Your task to perform on an android device: read, delete, or share a saved page in the chrome app Image 0: 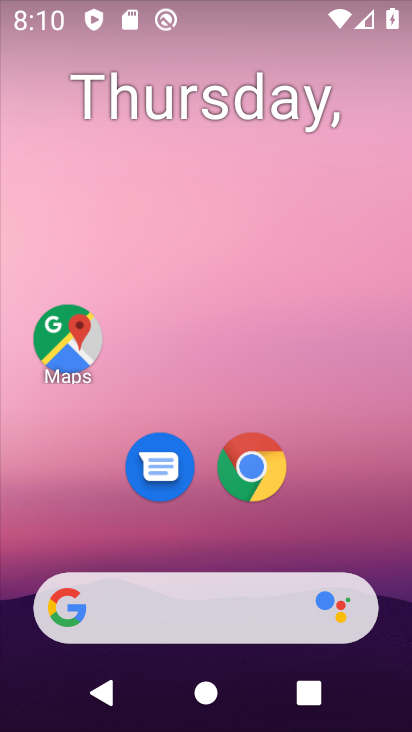
Step 0: click (249, 483)
Your task to perform on an android device: read, delete, or share a saved page in the chrome app Image 1: 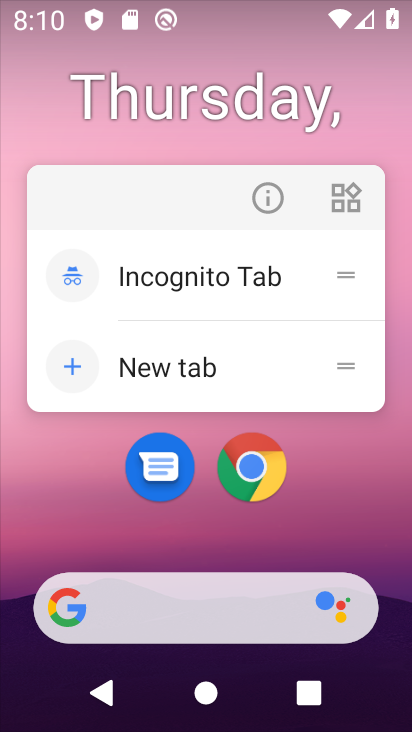
Step 1: click (256, 453)
Your task to perform on an android device: read, delete, or share a saved page in the chrome app Image 2: 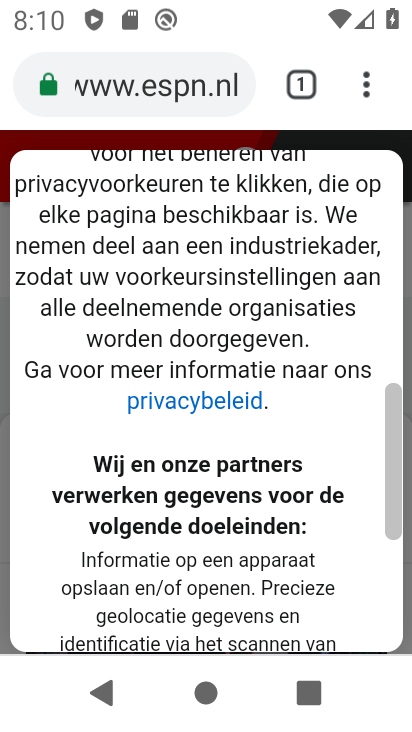
Step 2: drag from (274, 565) to (268, 200)
Your task to perform on an android device: read, delete, or share a saved page in the chrome app Image 3: 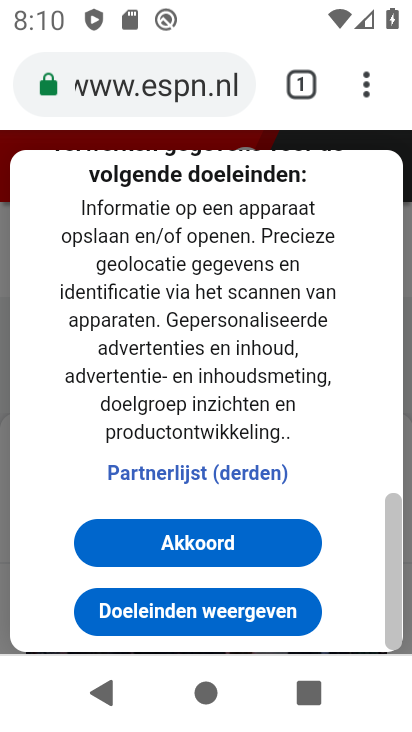
Step 3: click (363, 89)
Your task to perform on an android device: read, delete, or share a saved page in the chrome app Image 4: 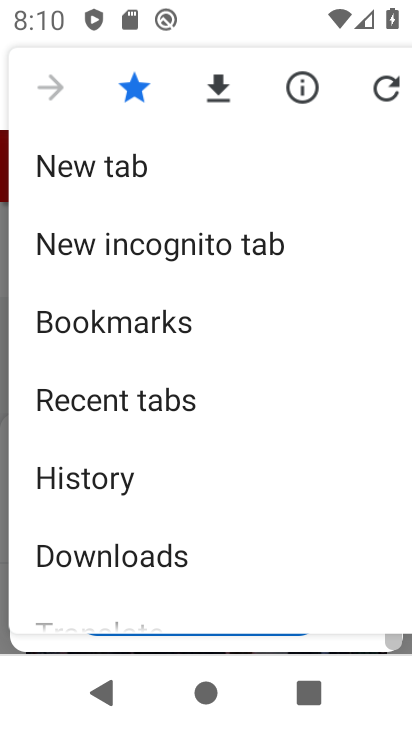
Step 4: task complete